Your task to perform on an android device: Open calendar and show me the second week of next month Image 0: 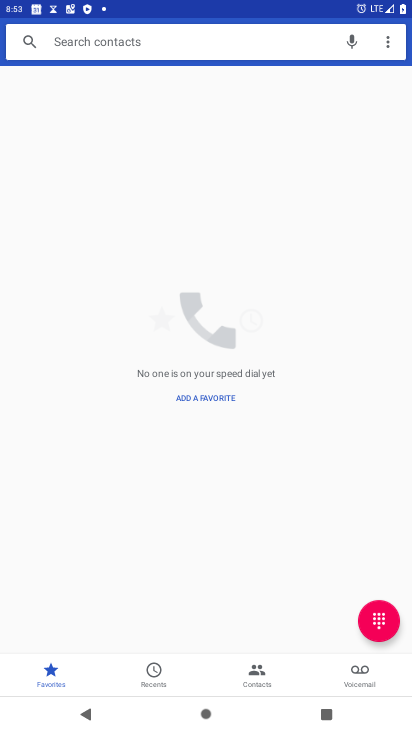
Step 0: press home button
Your task to perform on an android device: Open calendar and show me the second week of next month Image 1: 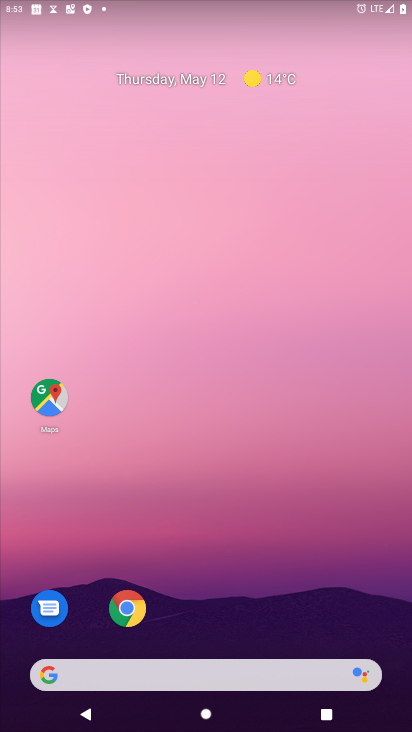
Step 1: drag from (205, 656) to (182, 237)
Your task to perform on an android device: Open calendar and show me the second week of next month Image 2: 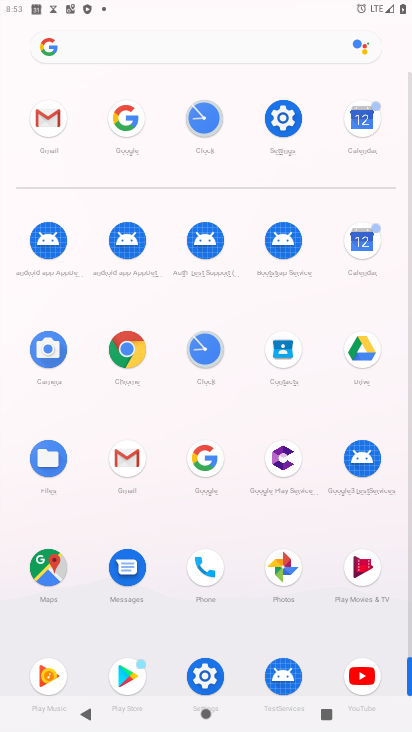
Step 2: click (364, 128)
Your task to perform on an android device: Open calendar and show me the second week of next month Image 3: 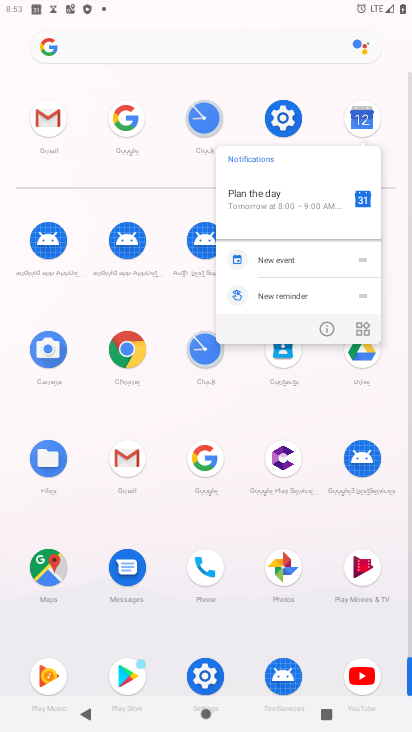
Step 3: click (377, 119)
Your task to perform on an android device: Open calendar and show me the second week of next month Image 4: 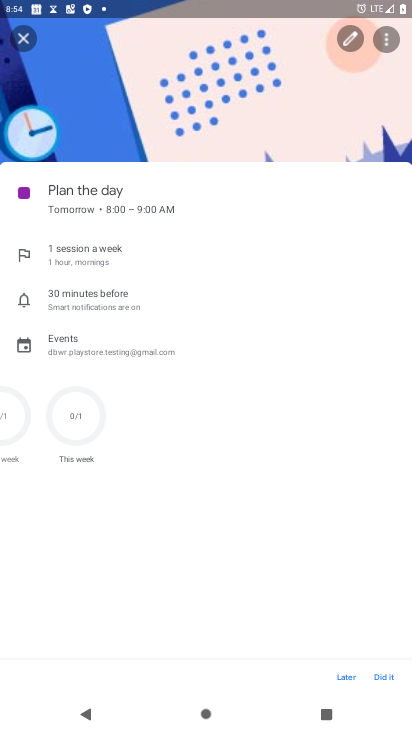
Step 4: click (19, 43)
Your task to perform on an android device: Open calendar and show me the second week of next month Image 5: 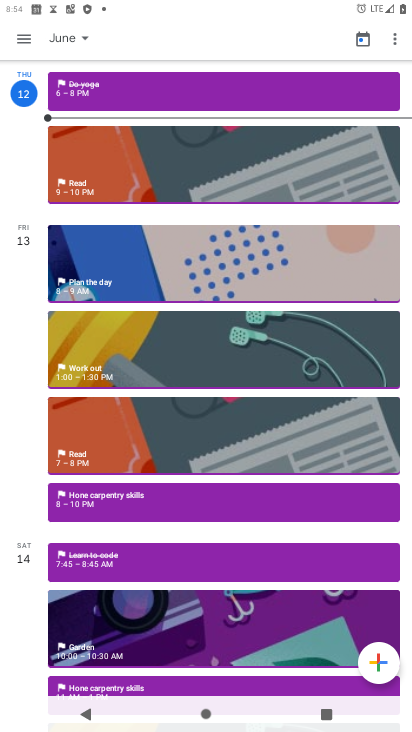
Step 5: click (72, 40)
Your task to perform on an android device: Open calendar and show me the second week of next month Image 6: 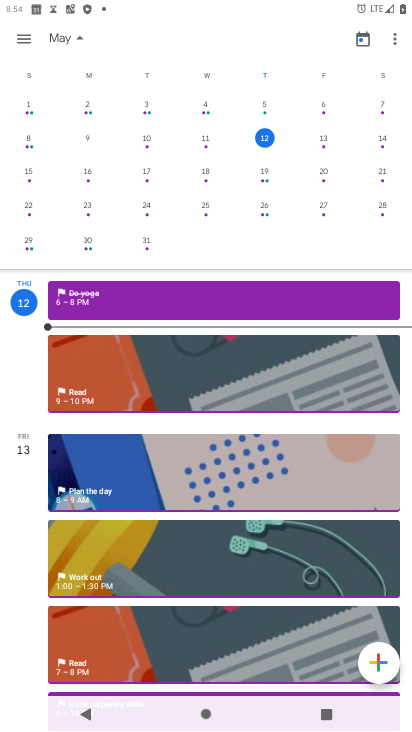
Step 6: drag from (390, 198) to (3, 233)
Your task to perform on an android device: Open calendar and show me the second week of next month Image 7: 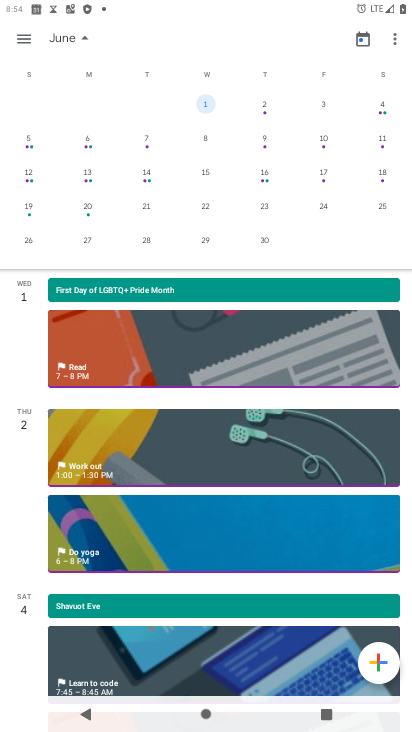
Step 7: click (36, 135)
Your task to perform on an android device: Open calendar and show me the second week of next month Image 8: 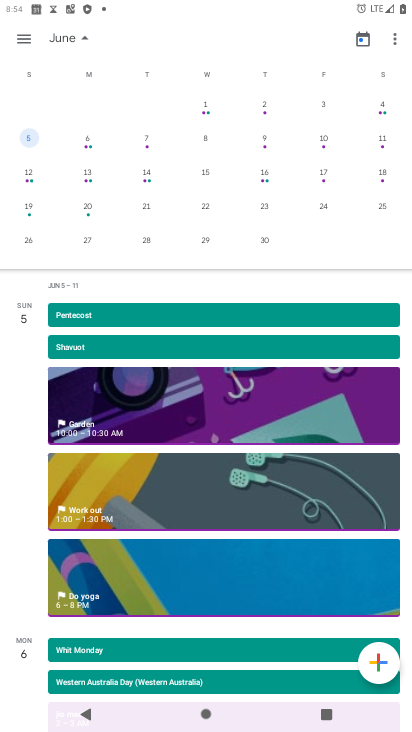
Step 8: task complete